Your task to perform on an android device: turn off javascript in the chrome app Image 0: 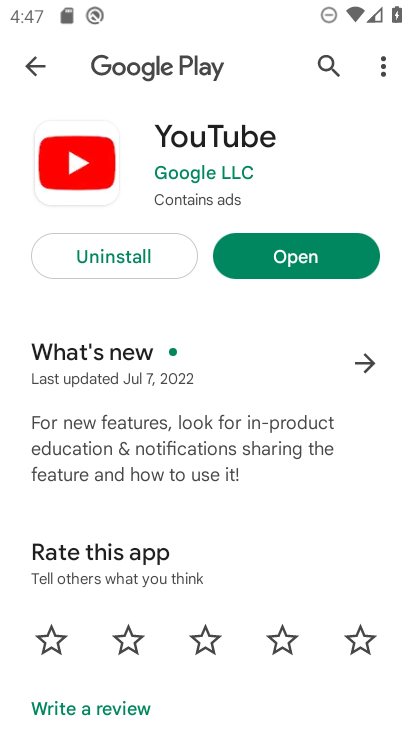
Step 0: press home button
Your task to perform on an android device: turn off javascript in the chrome app Image 1: 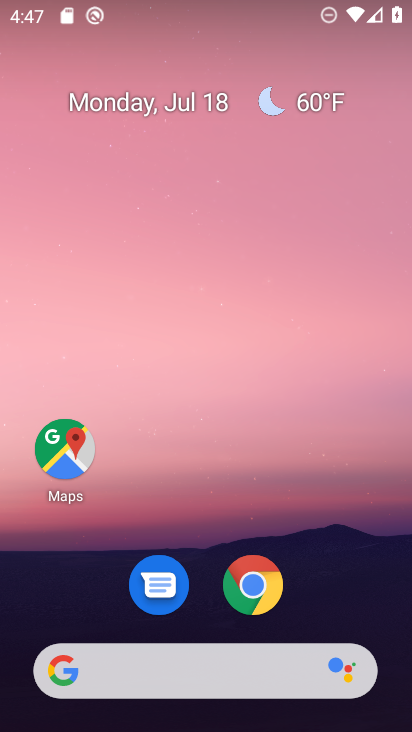
Step 1: click (253, 597)
Your task to perform on an android device: turn off javascript in the chrome app Image 2: 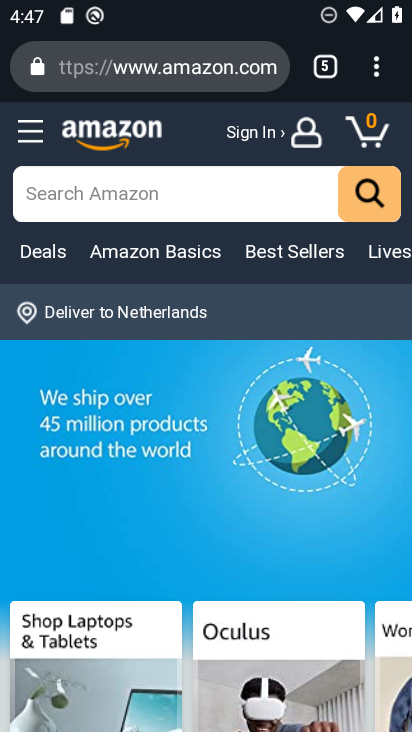
Step 2: click (375, 75)
Your task to perform on an android device: turn off javascript in the chrome app Image 3: 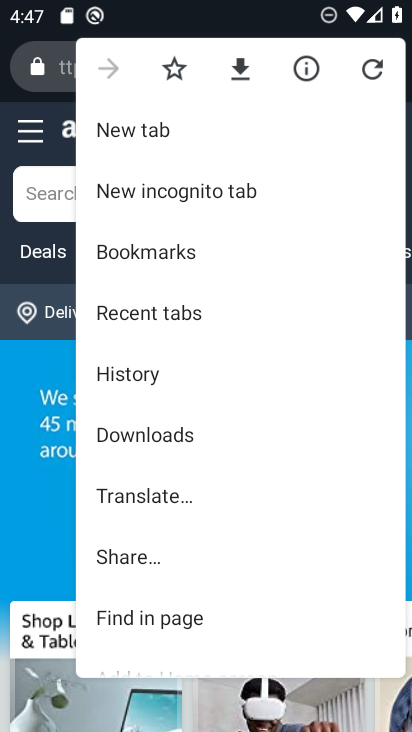
Step 3: drag from (243, 570) to (312, 260)
Your task to perform on an android device: turn off javascript in the chrome app Image 4: 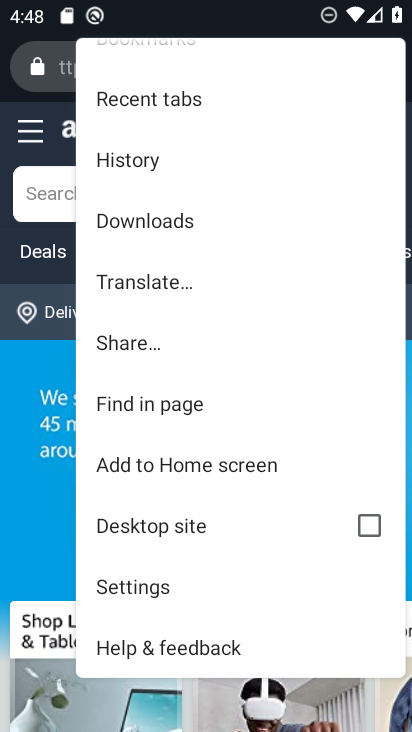
Step 4: click (164, 591)
Your task to perform on an android device: turn off javascript in the chrome app Image 5: 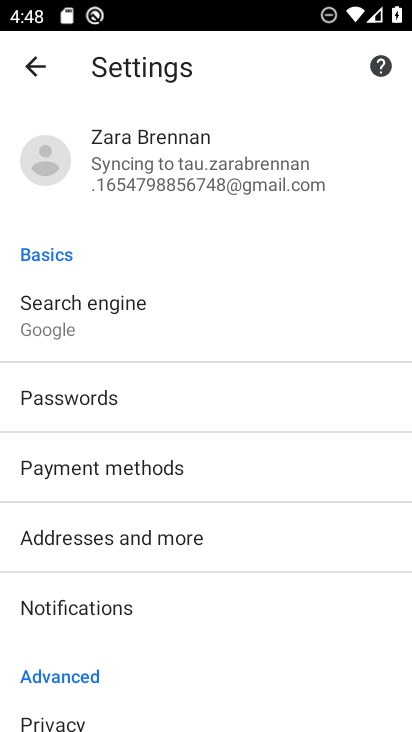
Step 5: drag from (195, 622) to (202, 259)
Your task to perform on an android device: turn off javascript in the chrome app Image 6: 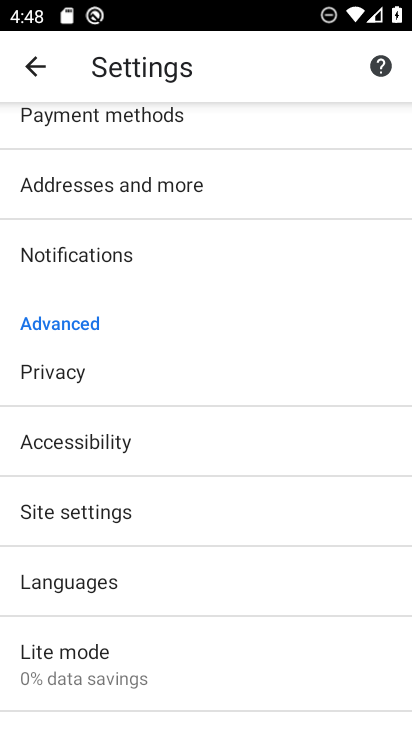
Step 6: click (155, 496)
Your task to perform on an android device: turn off javascript in the chrome app Image 7: 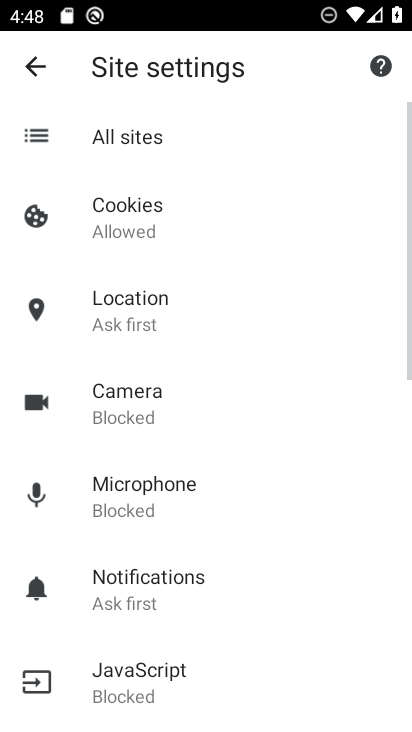
Step 7: drag from (256, 555) to (260, 337)
Your task to perform on an android device: turn off javascript in the chrome app Image 8: 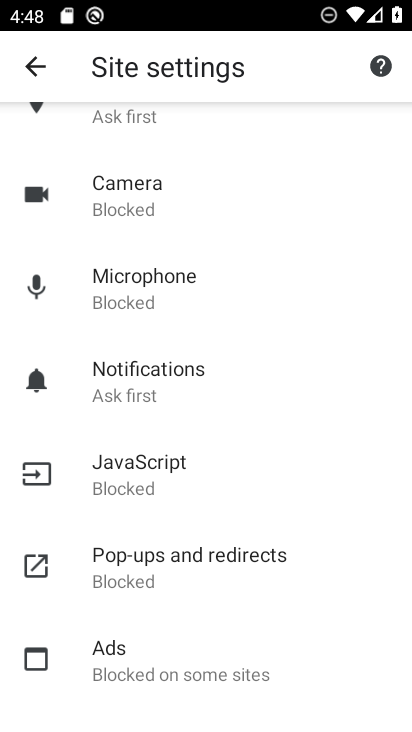
Step 8: click (222, 471)
Your task to perform on an android device: turn off javascript in the chrome app Image 9: 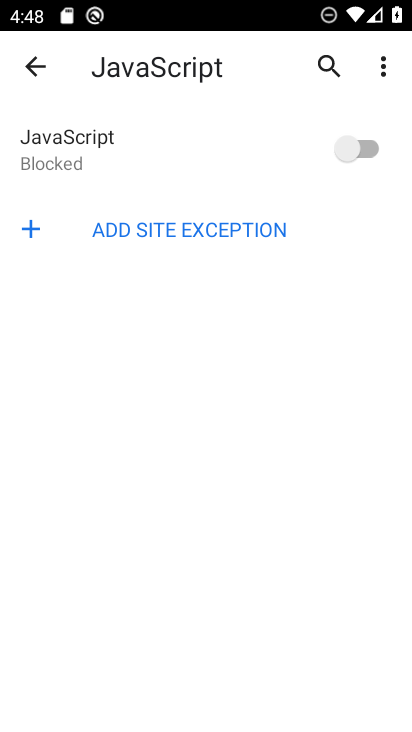
Step 9: task complete